Your task to perform on an android device: Check the weather Image 0: 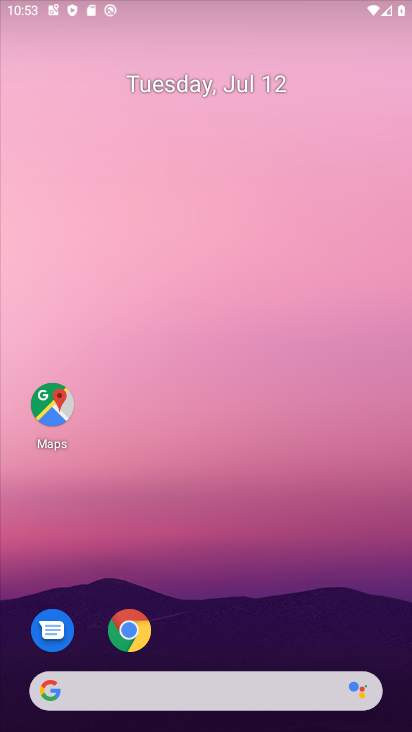
Step 0: drag from (256, 626) to (223, 125)
Your task to perform on an android device: Check the weather Image 1: 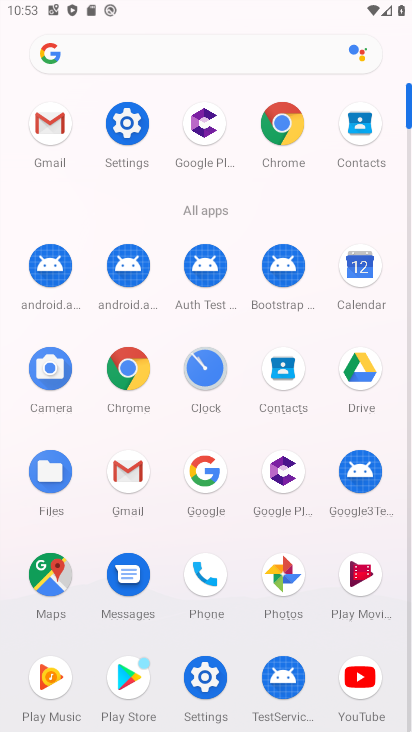
Step 1: click (287, 125)
Your task to perform on an android device: Check the weather Image 2: 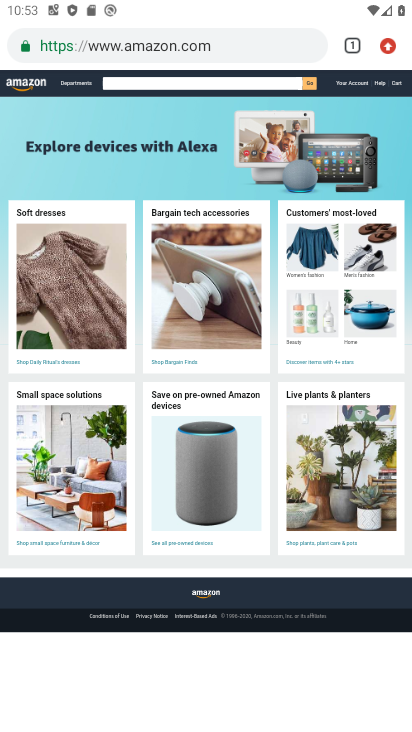
Step 2: click (162, 52)
Your task to perform on an android device: Check the weather Image 3: 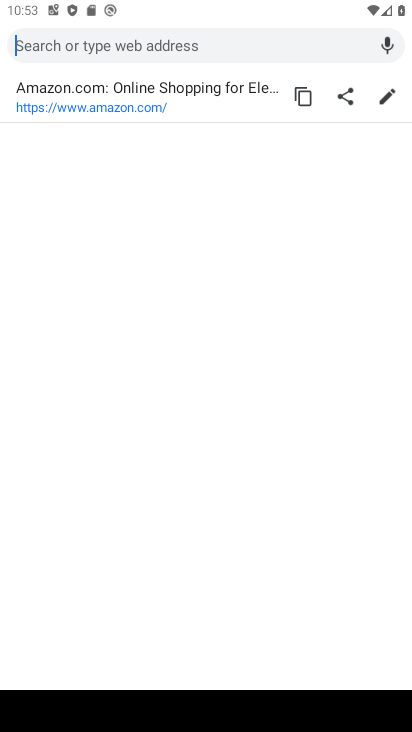
Step 3: type "weather"
Your task to perform on an android device: Check the weather Image 4: 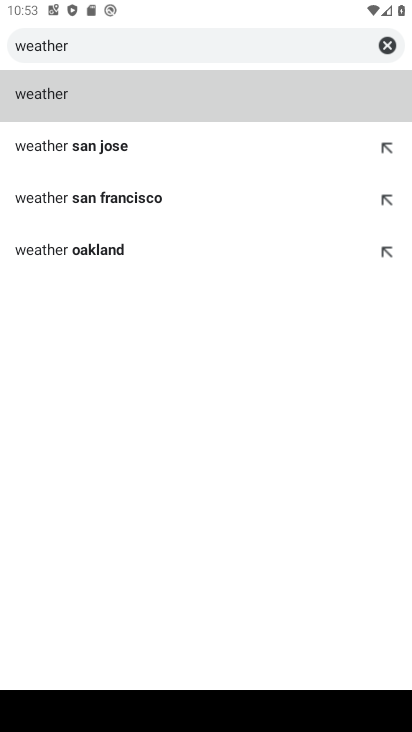
Step 4: click (49, 96)
Your task to perform on an android device: Check the weather Image 5: 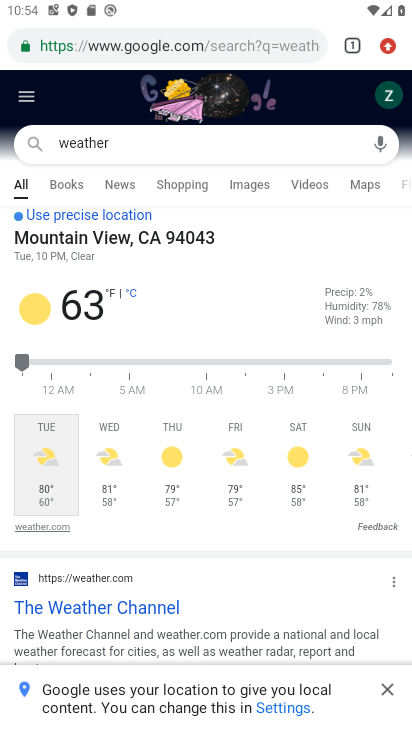
Step 5: task complete